Your task to perform on an android device: turn on data saver in the chrome app Image 0: 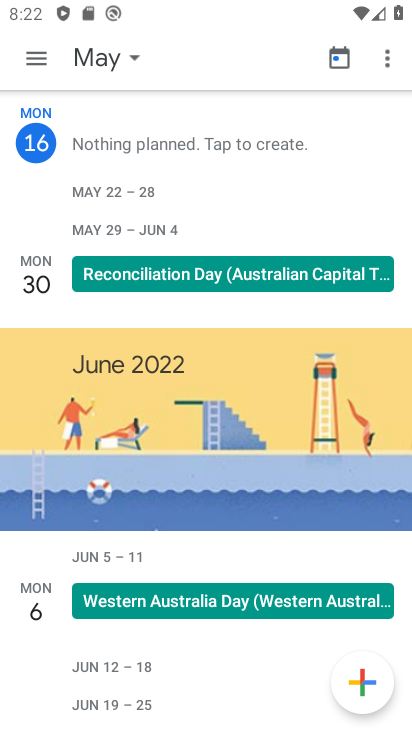
Step 0: press home button
Your task to perform on an android device: turn on data saver in the chrome app Image 1: 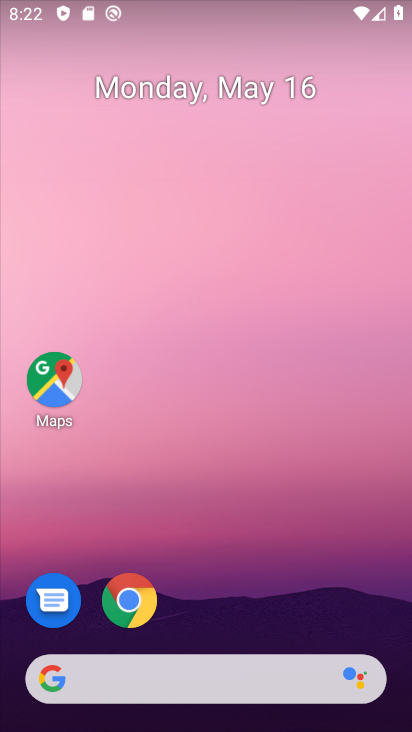
Step 1: click (129, 599)
Your task to perform on an android device: turn on data saver in the chrome app Image 2: 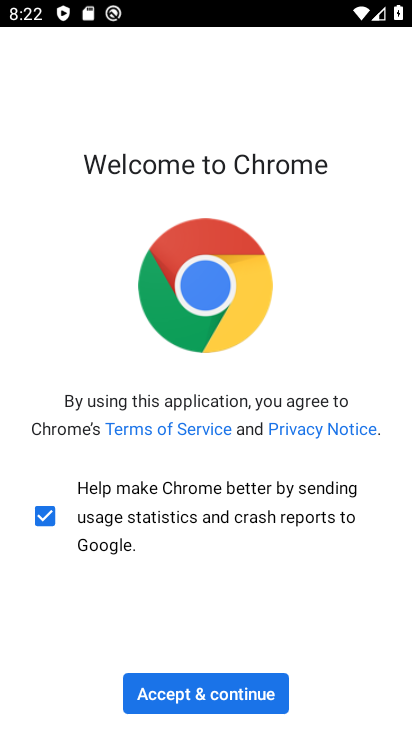
Step 2: click (215, 693)
Your task to perform on an android device: turn on data saver in the chrome app Image 3: 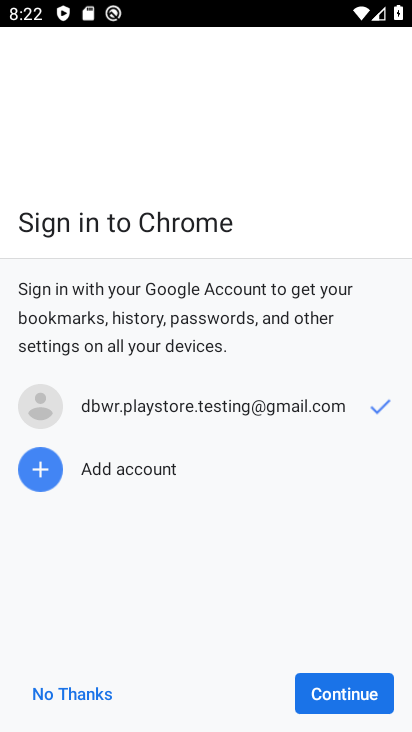
Step 3: click (356, 693)
Your task to perform on an android device: turn on data saver in the chrome app Image 4: 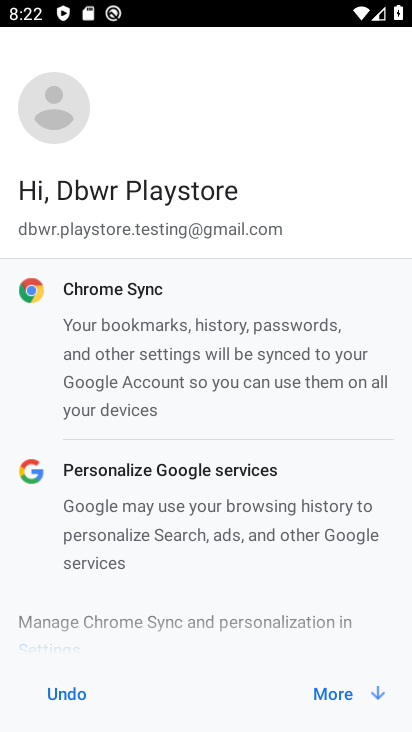
Step 4: click (342, 700)
Your task to perform on an android device: turn on data saver in the chrome app Image 5: 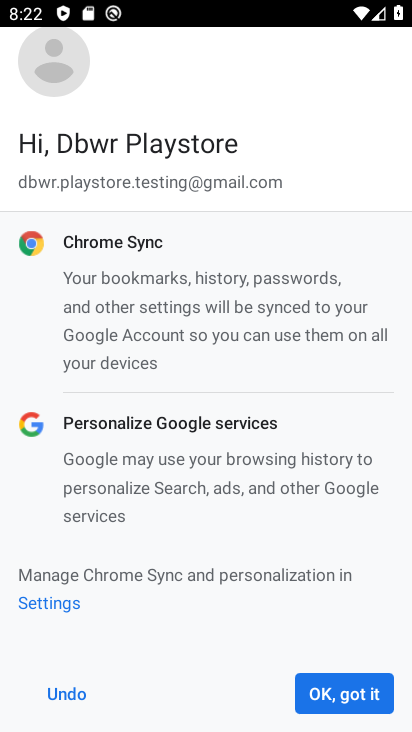
Step 5: click (325, 695)
Your task to perform on an android device: turn on data saver in the chrome app Image 6: 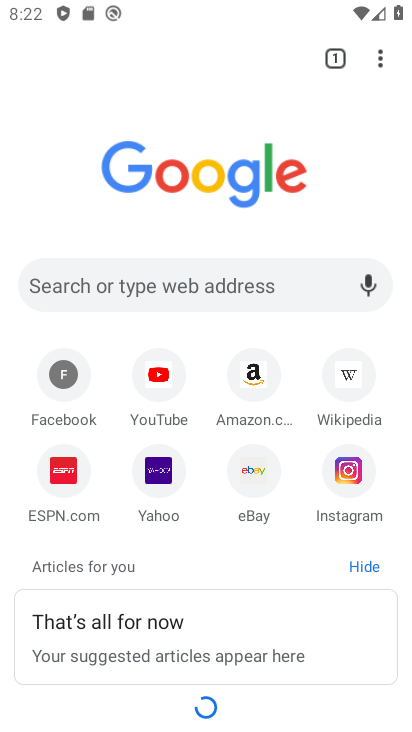
Step 6: click (383, 66)
Your task to perform on an android device: turn on data saver in the chrome app Image 7: 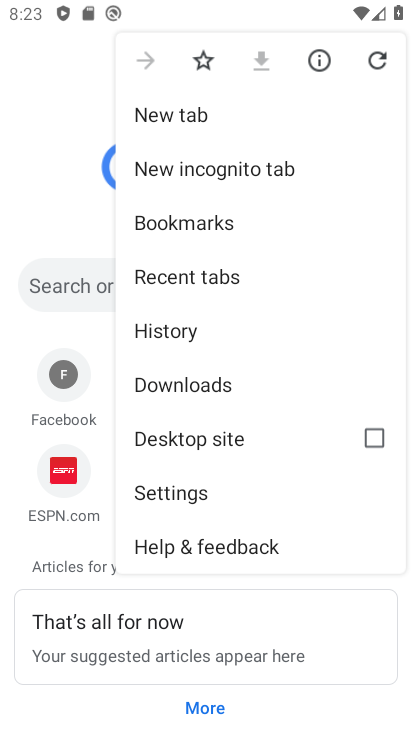
Step 7: click (196, 496)
Your task to perform on an android device: turn on data saver in the chrome app Image 8: 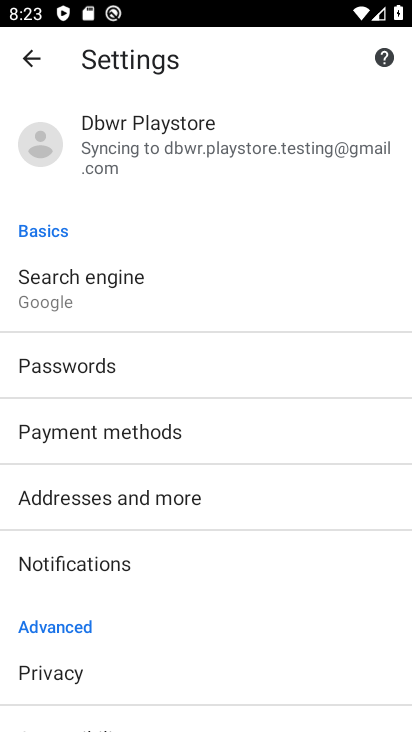
Step 8: drag from (180, 613) to (223, 289)
Your task to perform on an android device: turn on data saver in the chrome app Image 9: 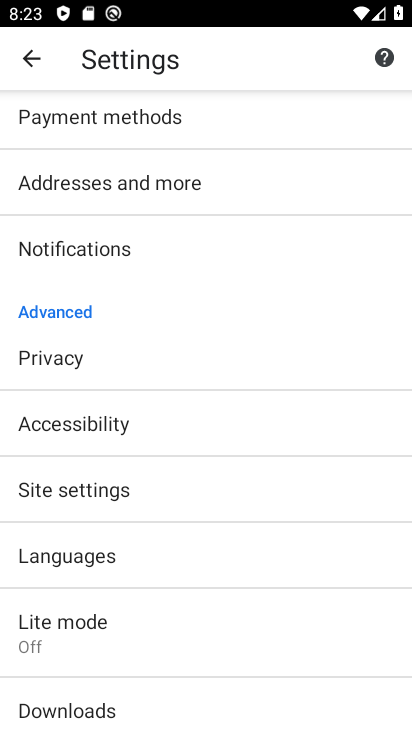
Step 9: click (62, 627)
Your task to perform on an android device: turn on data saver in the chrome app Image 10: 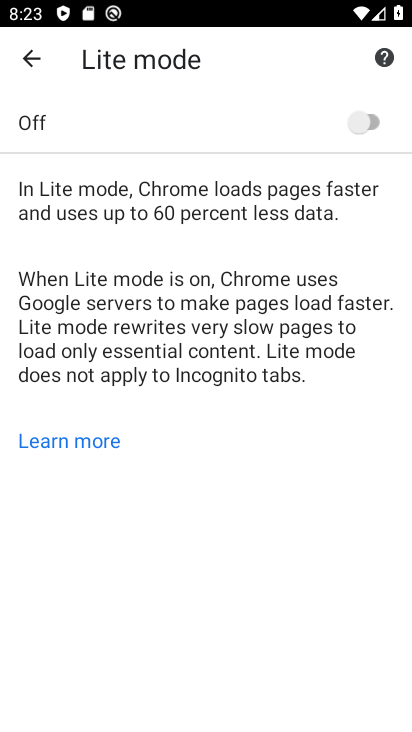
Step 10: click (370, 118)
Your task to perform on an android device: turn on data saver in the chrome app Image 11: 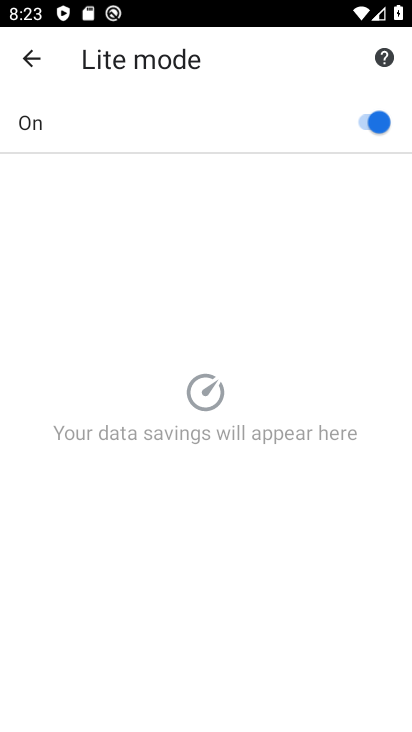
Step 11: task complete